Your task to perform on an android device: Go to display settings Image 0: 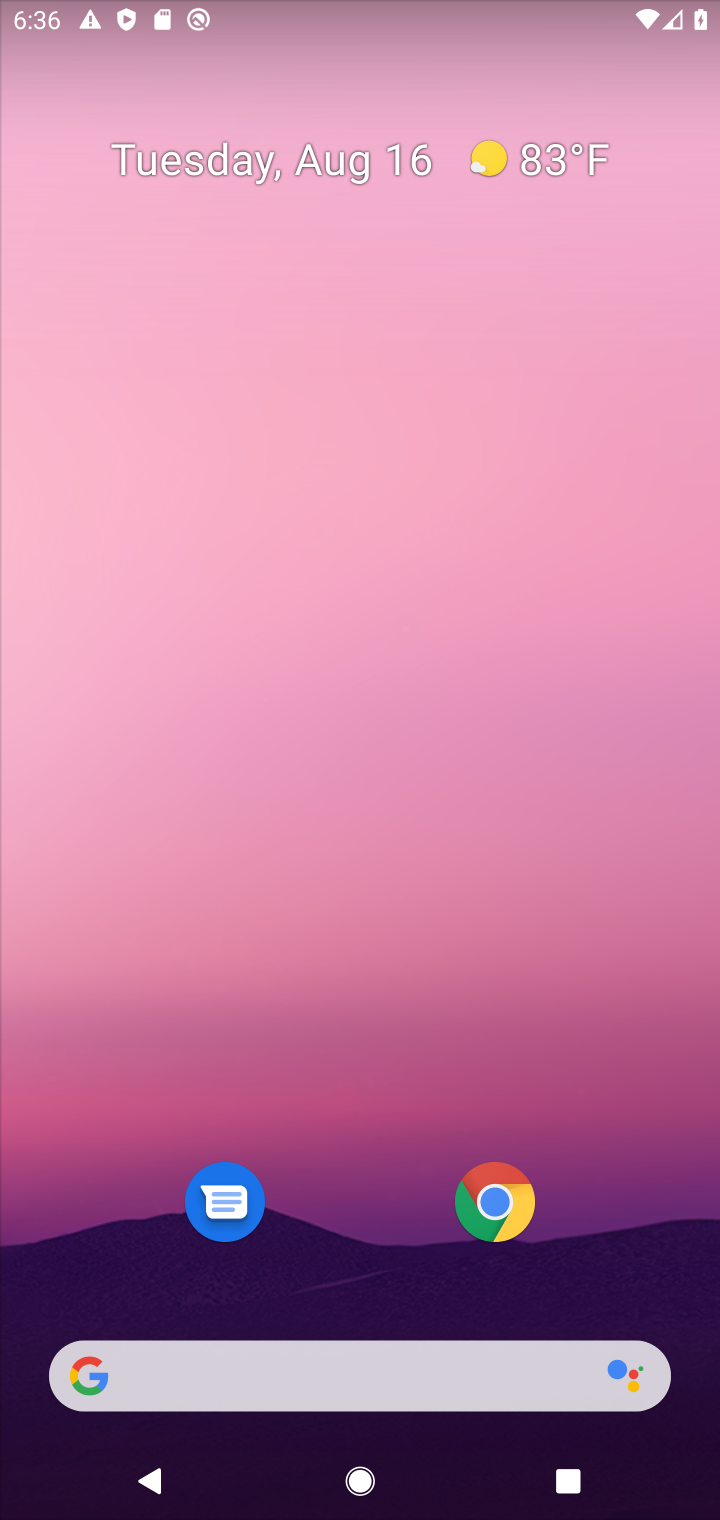
Step 0: drag from (637, 1233) to (311, 15)
Your task to perform on an android device: Go to display settings Image 1: 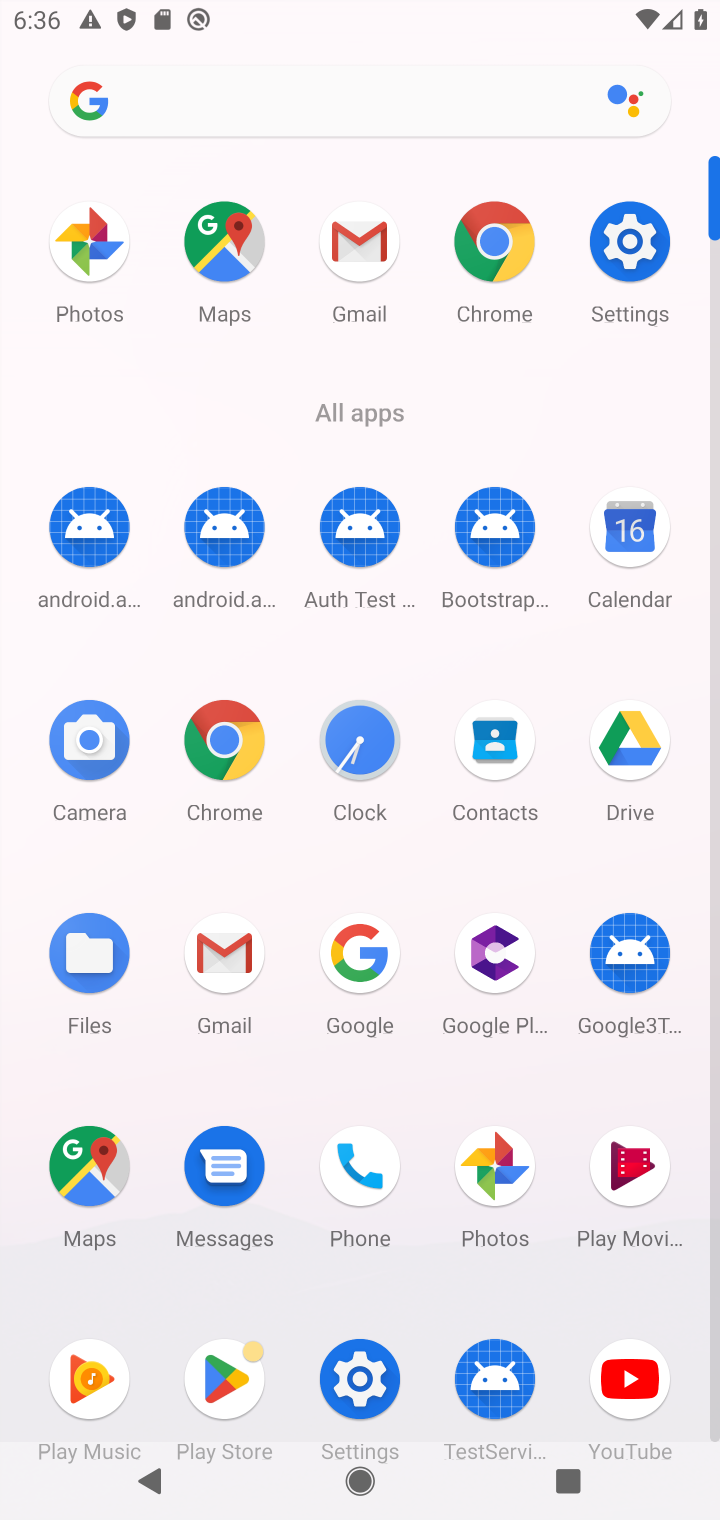
Step 1: click (640, 254)
Your task to perform on an android device: Go to display settings Image 2: 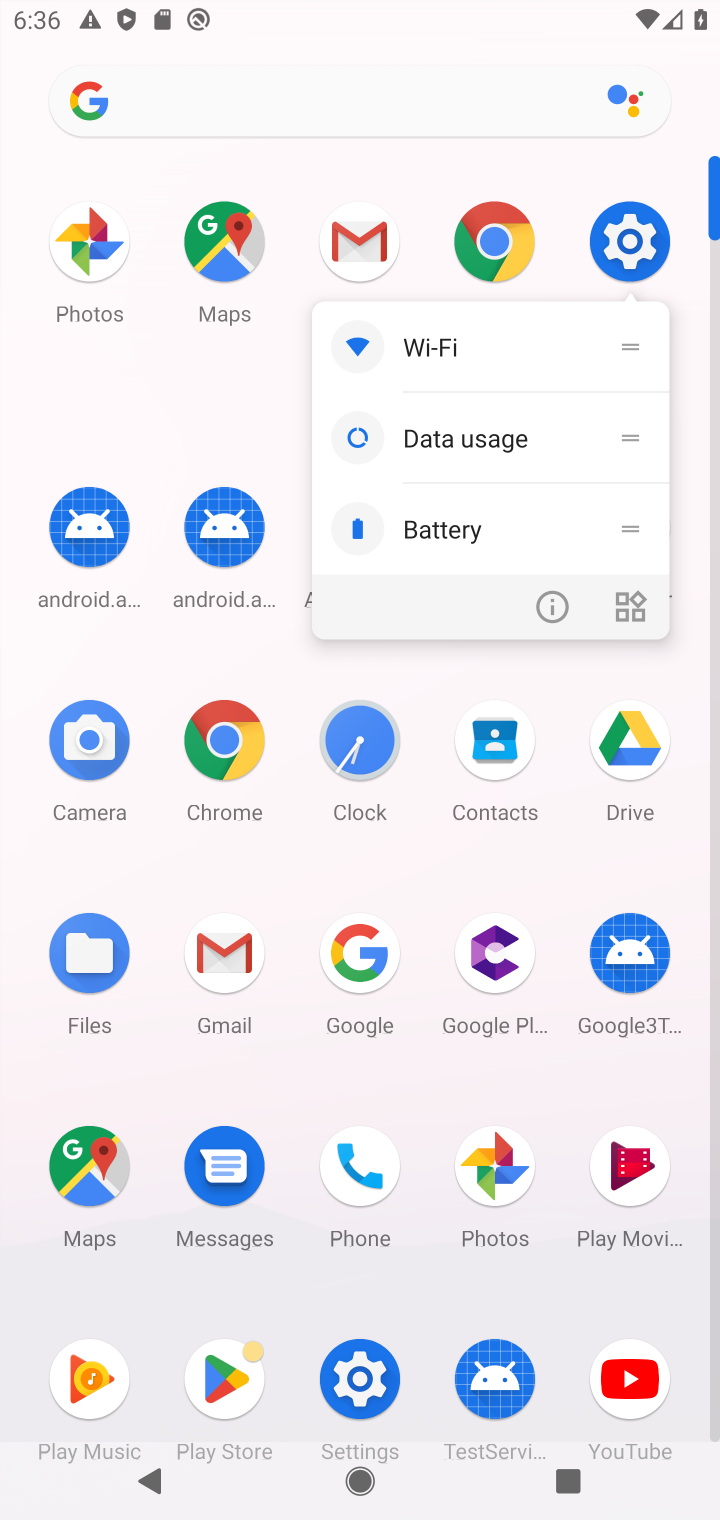
Step 2: click (640, 254)
Your task to perform on an android device: Go to display settings Image 3: 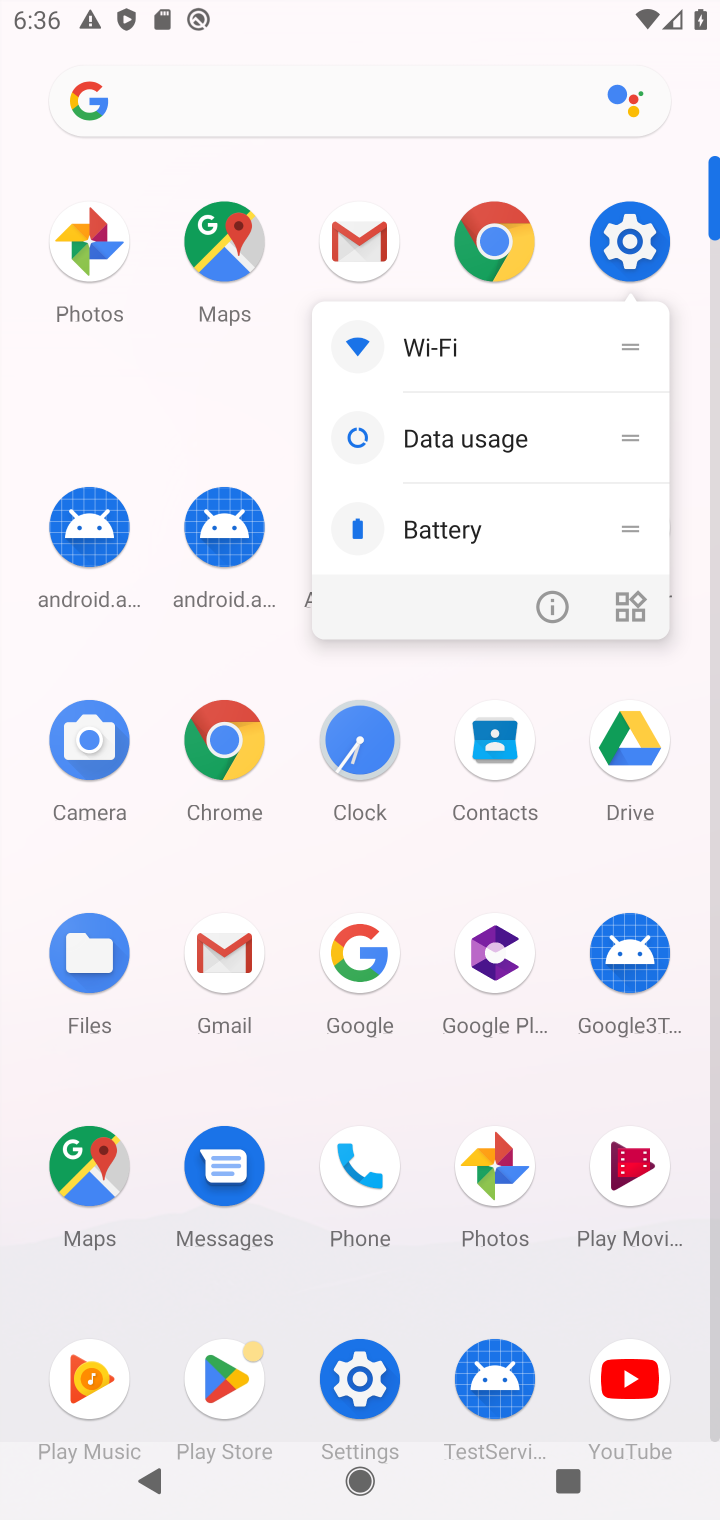
Step 3: click (640, 254)
Your task to perform on an android device: Go to display settings Image 4: 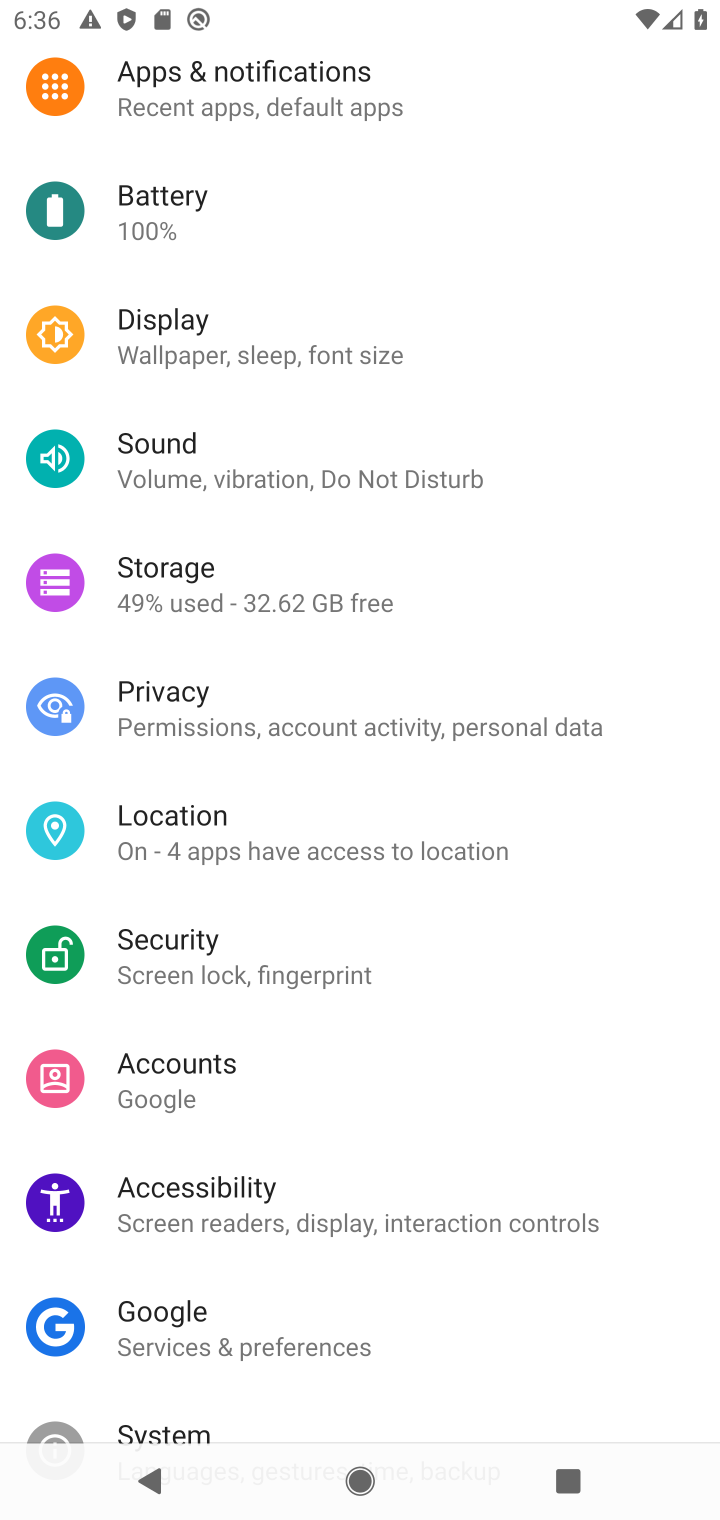
Step 4: click (190, 355)
Your task to perform on an android device: Go to display settings Image 5: 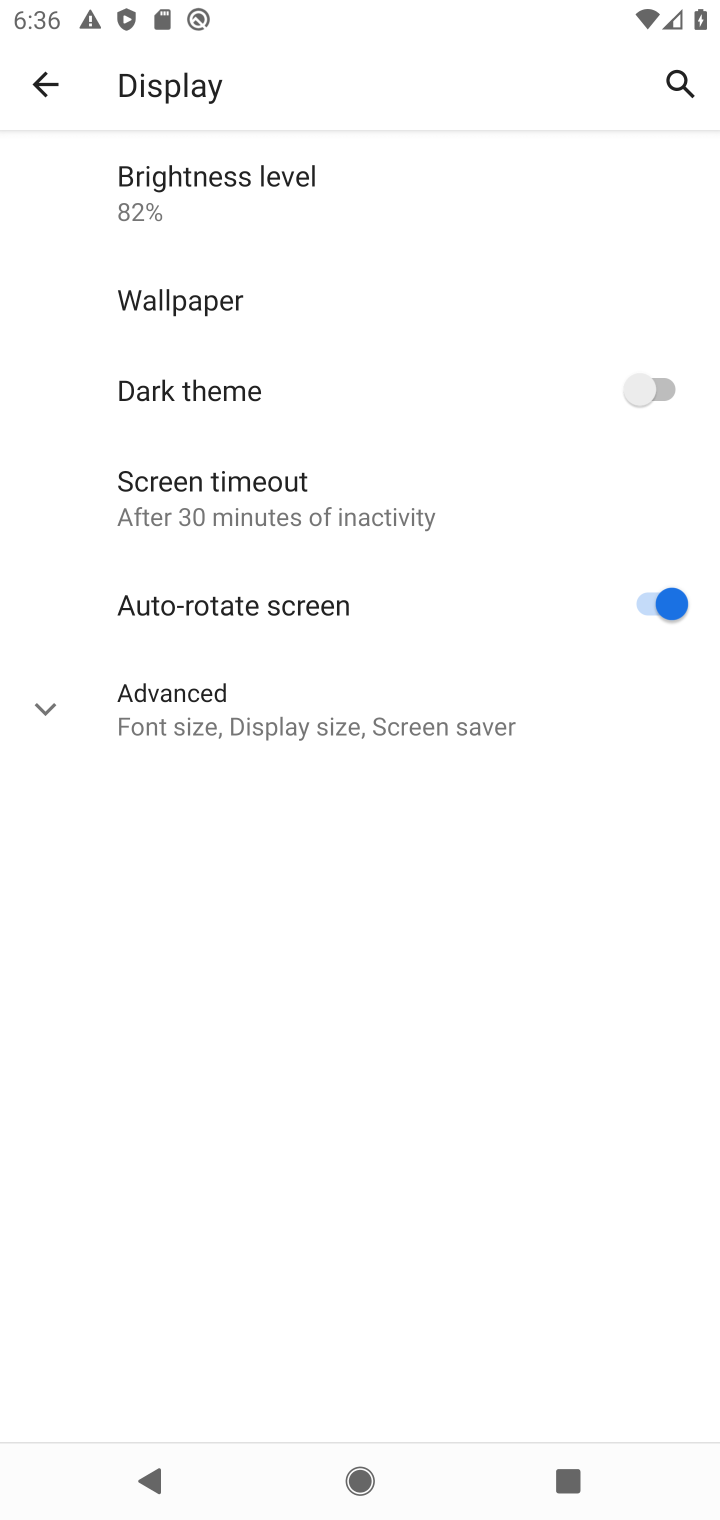
Step 5: task complete